Your task to perform on an android device: find which apps use the phone's location Image 0: 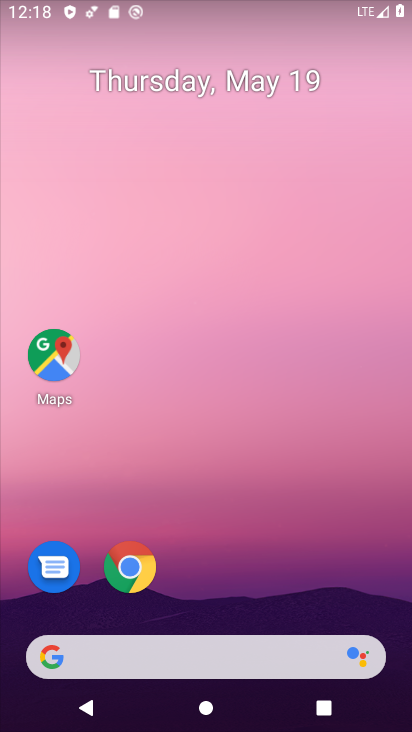
Step 0: drag from (293, 548) to (266, 22)
Your task to perform on an android device: find which apps use the phone's location Image 1: 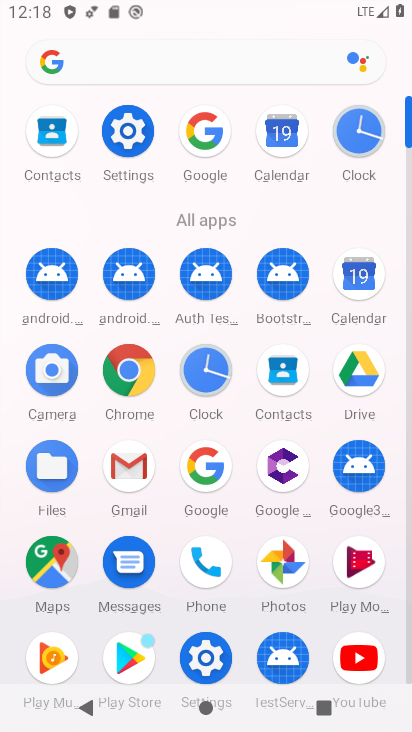
Step 1: click (125, 127)
Your task to perform on an android device: find which apps use the phone's location Image 2: 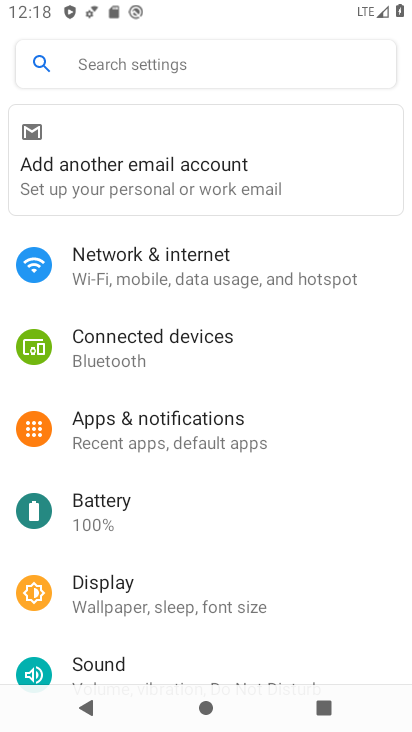
Step 2: drag from (228, 504) to (291, 40)
Your task to perform on an android device: find which apps use the phone's location Image 3: 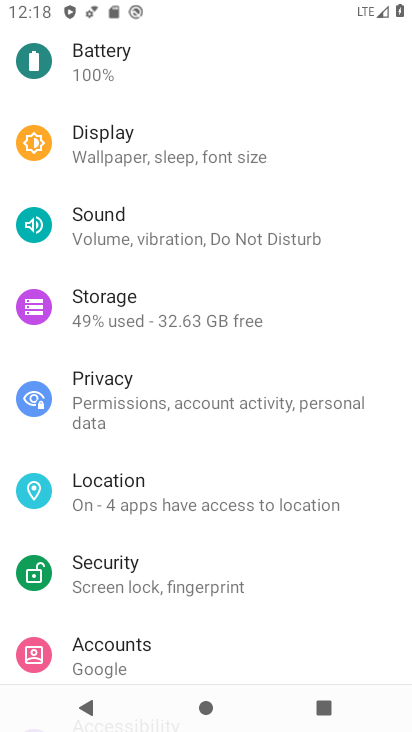
Step 3: click (218, 497)
Your task to perform on an android device: find which apps use the phone's location Image 4: 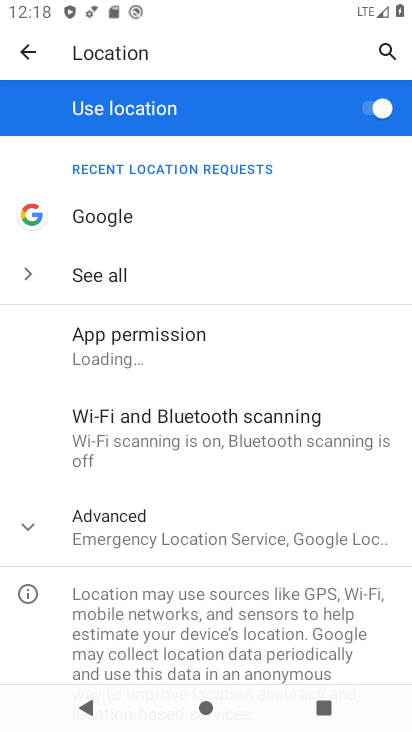
Step 4: click (158, 342)
Your task to perform on an android device: find which apps use the phone's location Image 5: 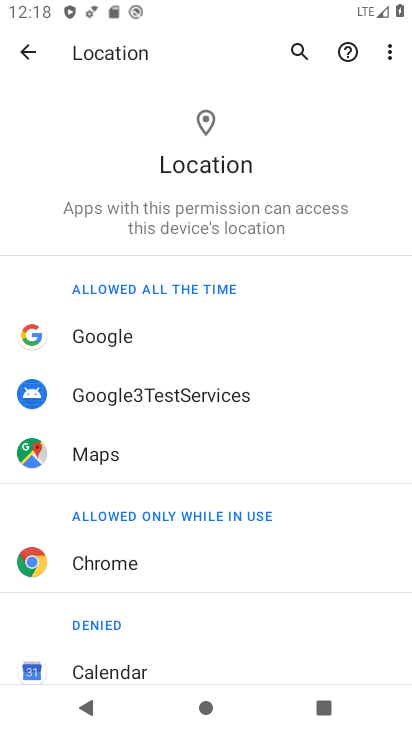
Step 5: task complete